Your task to perform on an android device: turn off javascript in the chrome app Image 0: 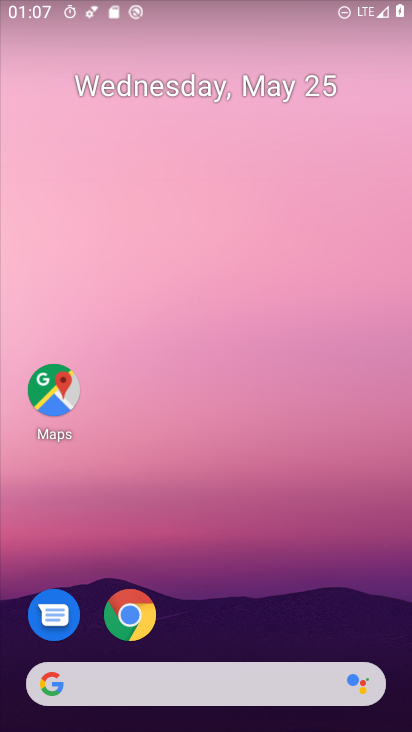
Step 0: drag from (274, 699) to (359, 76)
Your task to perform on an android device: turn off javascript in the chrome app Image 1: 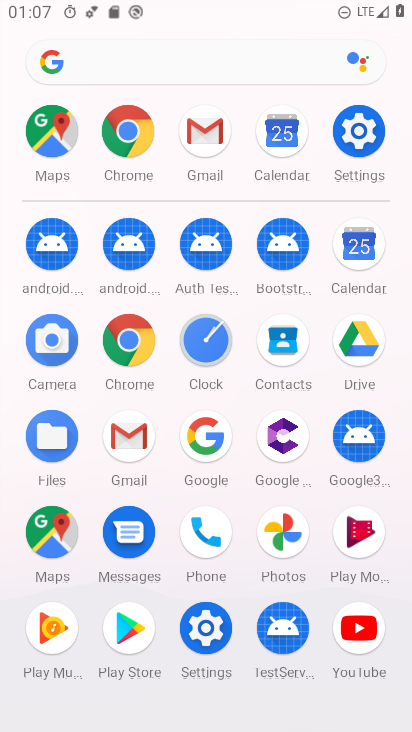
Step 1: click (138, 133)
Your task to perform on an android device: turn off javascript in the chrome app Image 2: 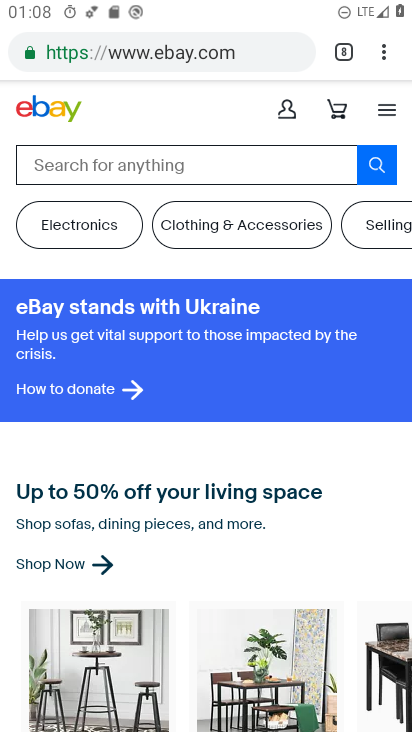
Step 2: click (384, 61)
Your task to perform on an android device: turn off javascript in the chrome app Image 3: 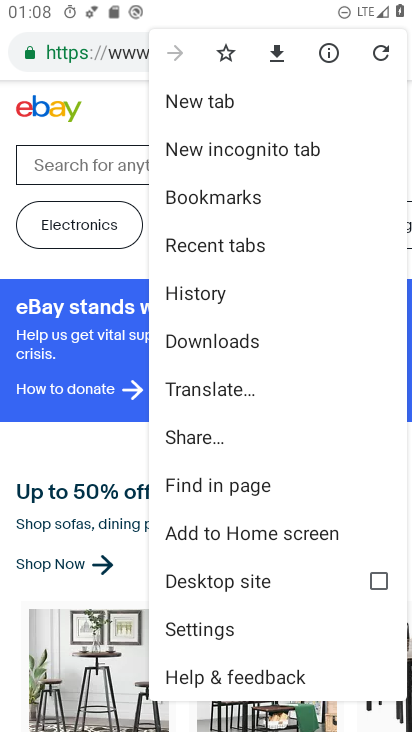
Step 3: click (224, 624)
Your task to perform on an android device: turn off javascript in the chrome app Image 4: 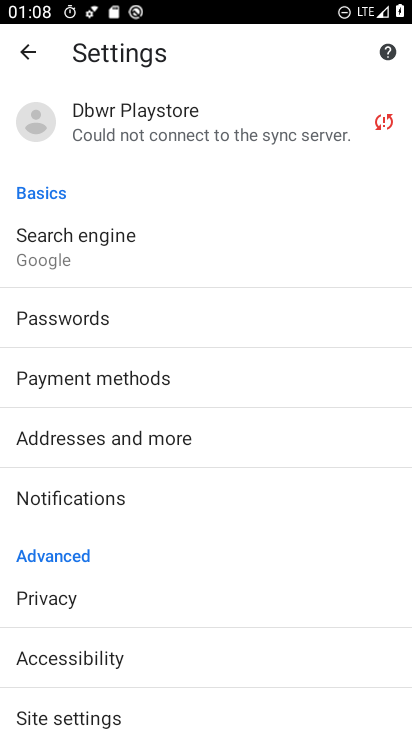
Step 4: click (90, 707)
Your task to perform on an android device: turn off javascript in the chrome app Image 5: 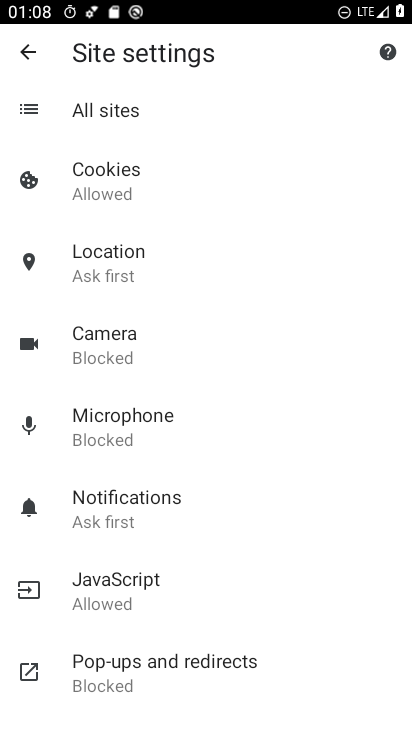
Step 5: click (148, 572)
Your task to perform on an android device: turn off javascript in the chrome app Image 6: 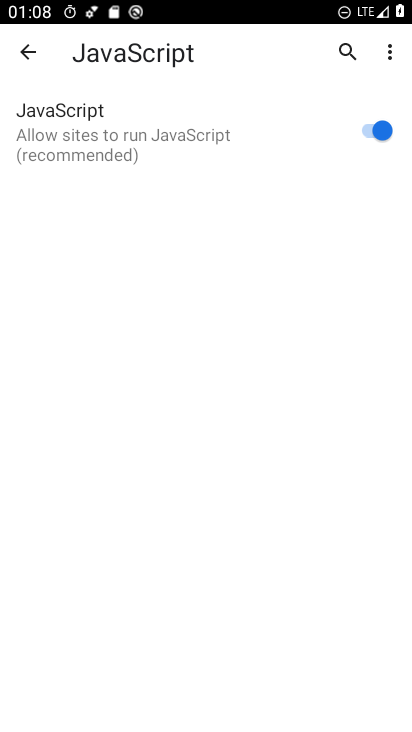
Step 6: click (361, 127)
Your task to perform on an android device: turn off javascript in the chrome app Image 7: 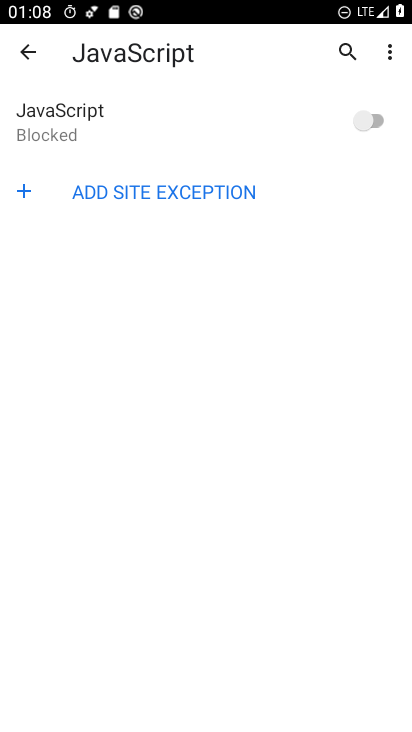
Step 7: task complete